Your task to perform on an android device: uninstall "Gmail" Image 0: 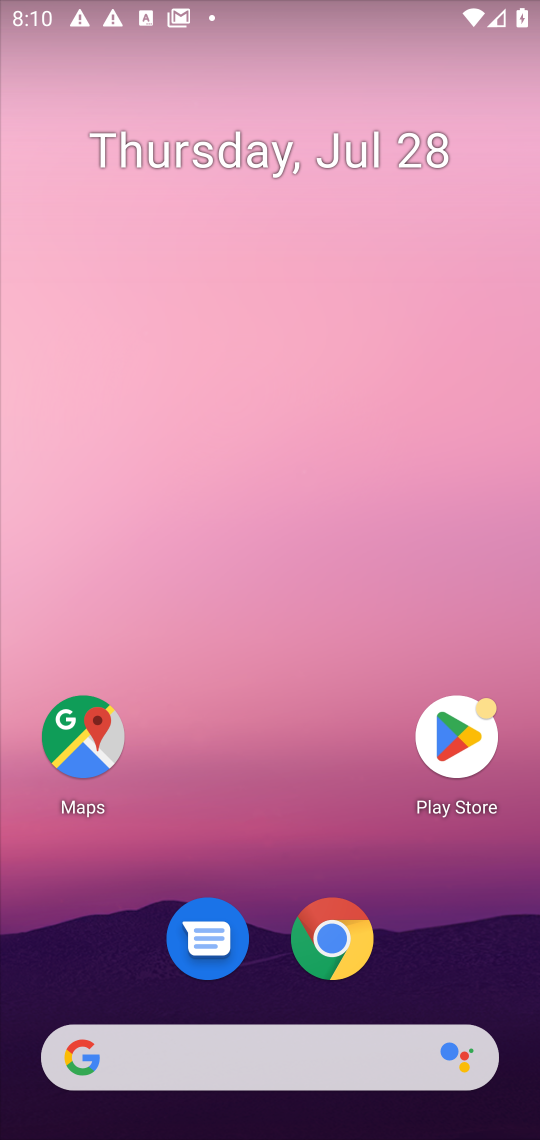
Step 0: click (454, 733)
Your task to perform on an android device: uninstall "Gmail" Image 1: 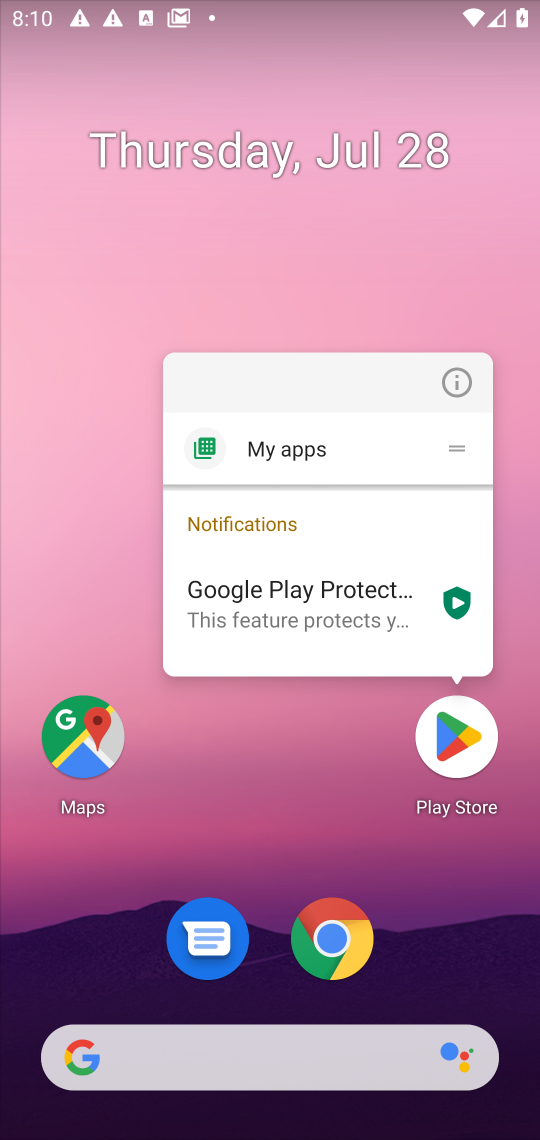
Step 1: click (439, 753)
Your task to perform on an android device: uninstall "Gmail" Image 2: 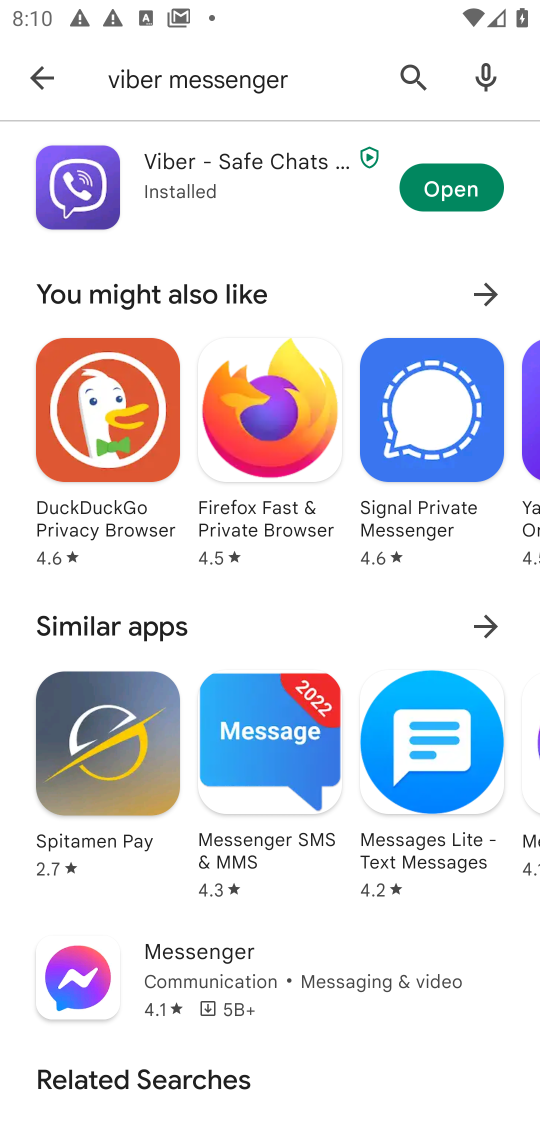
Step 2: click (413, 81)
Your task to perform on an android device: uninstall "Gmail" Image 3: 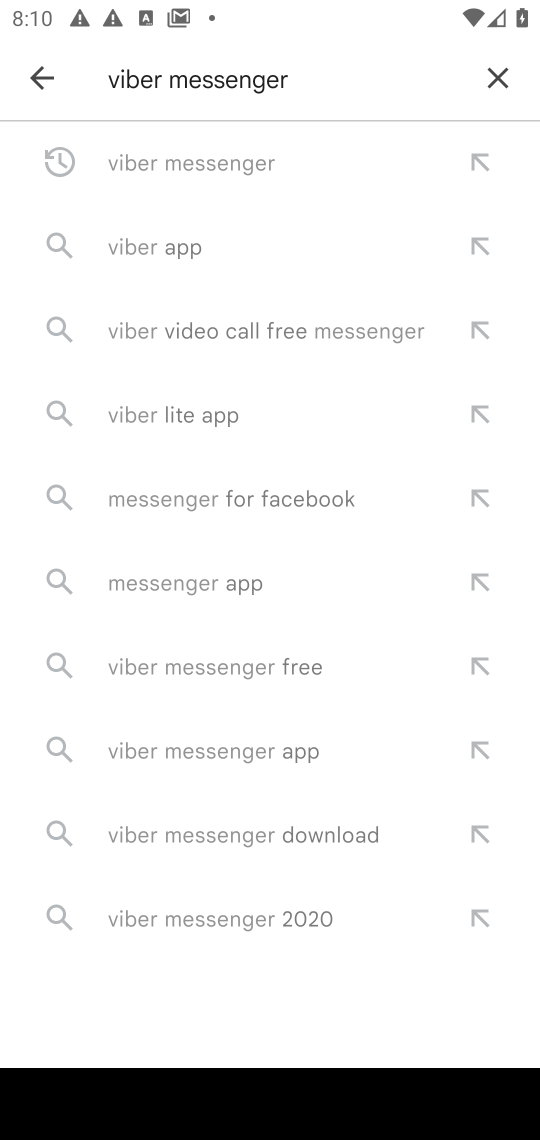
Step 3: click (497, 76)
Your task to perform on an android device: uninstall "Gmail" Image 4: 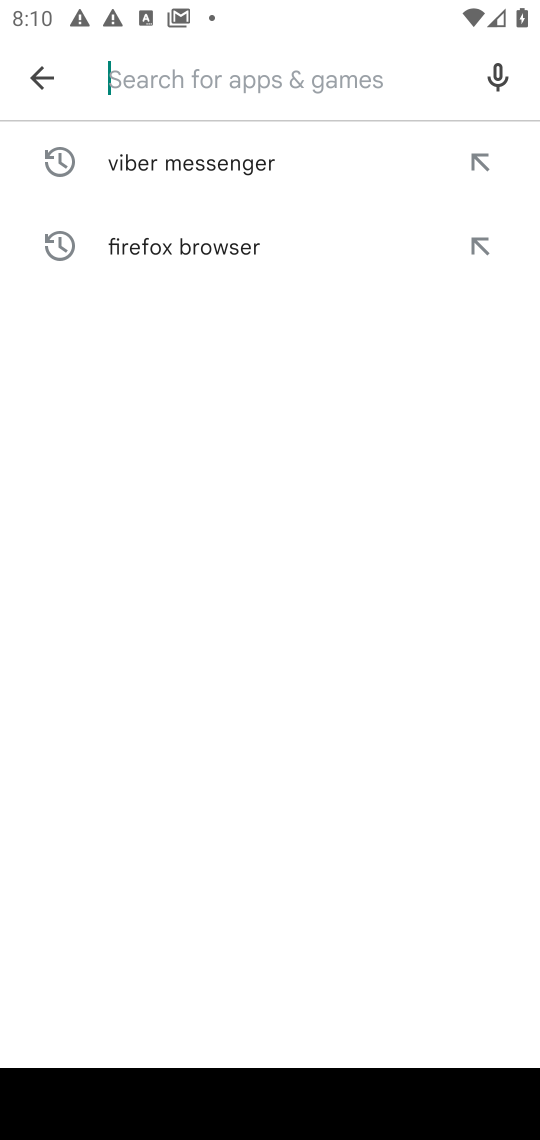
Step 4: type "Gmail"
Your task to perform on an android device: uninstall "Gmail" Image 5: 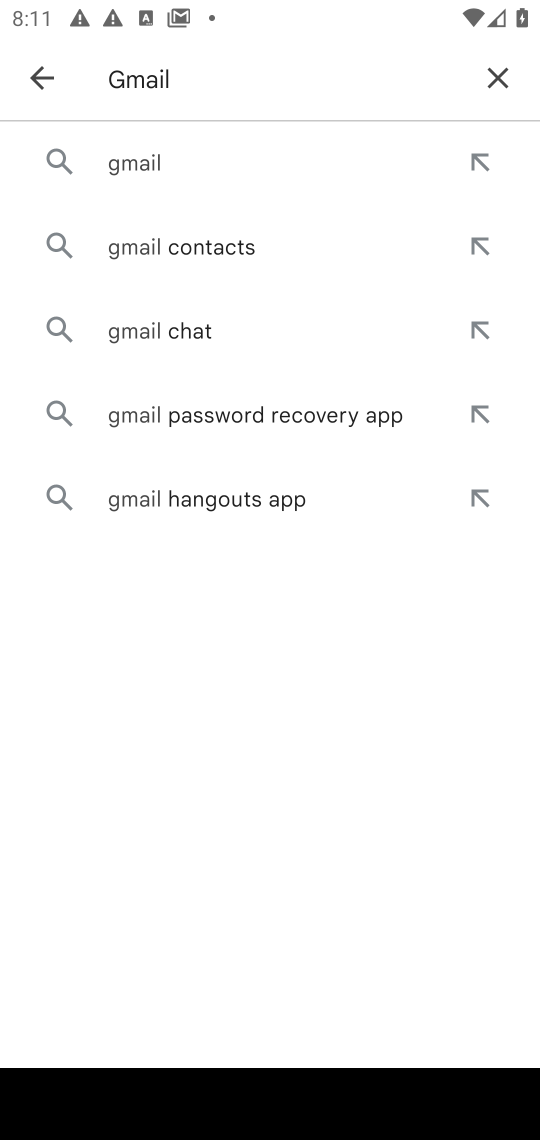
Step 5: click (147, 167)
Your task to perform on an android device: uninstall "Gmail" Image 6: 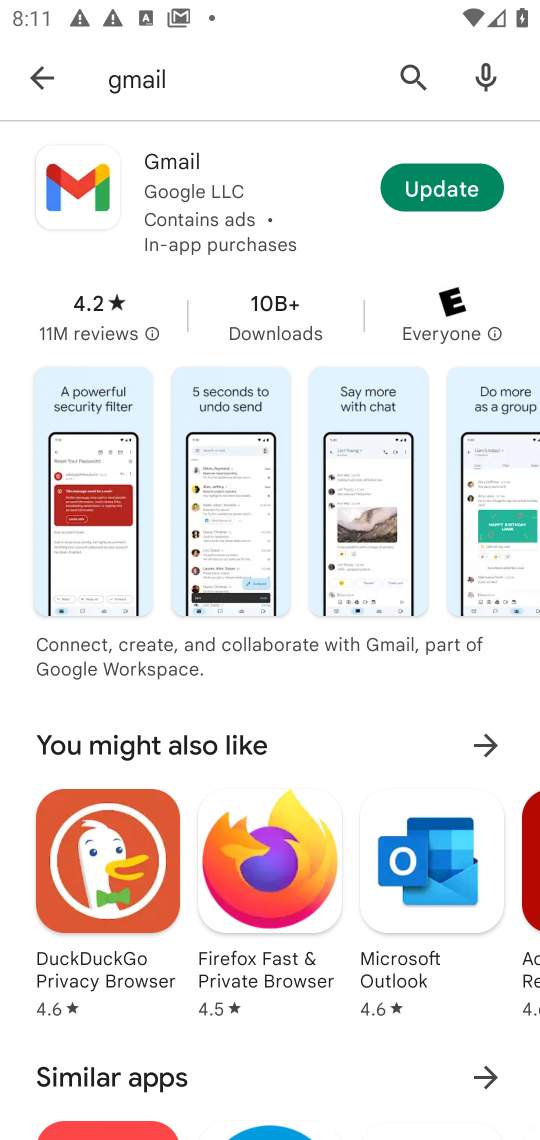
Step 6: click (436, 198)
Your task to perform on an android device: uninstall "Gmail" Image 7: 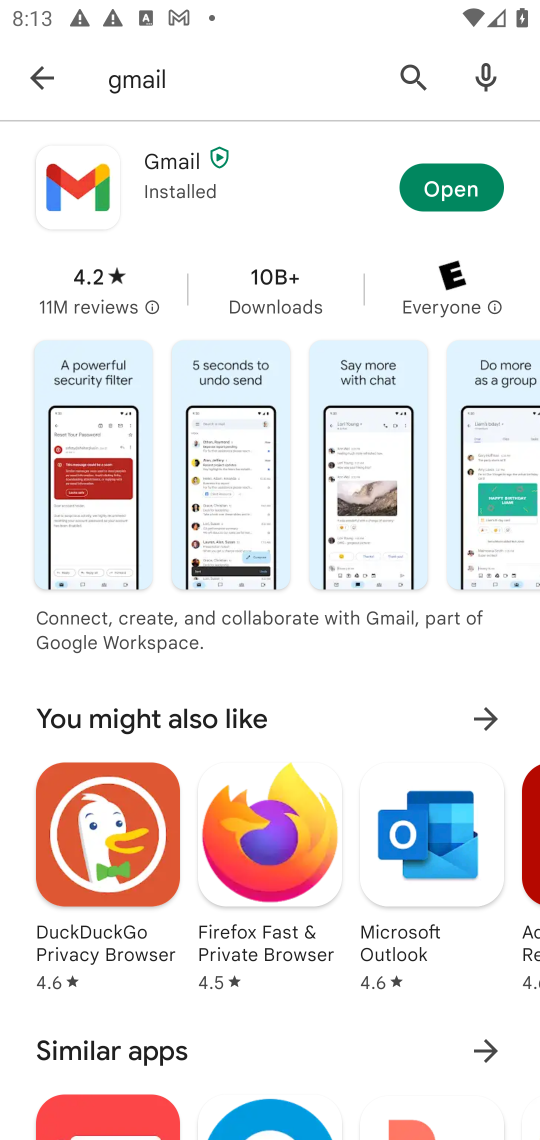
Step 7: click (304, 181)
Your task to perform on an android device: uninstall "Gmail" Image 8: 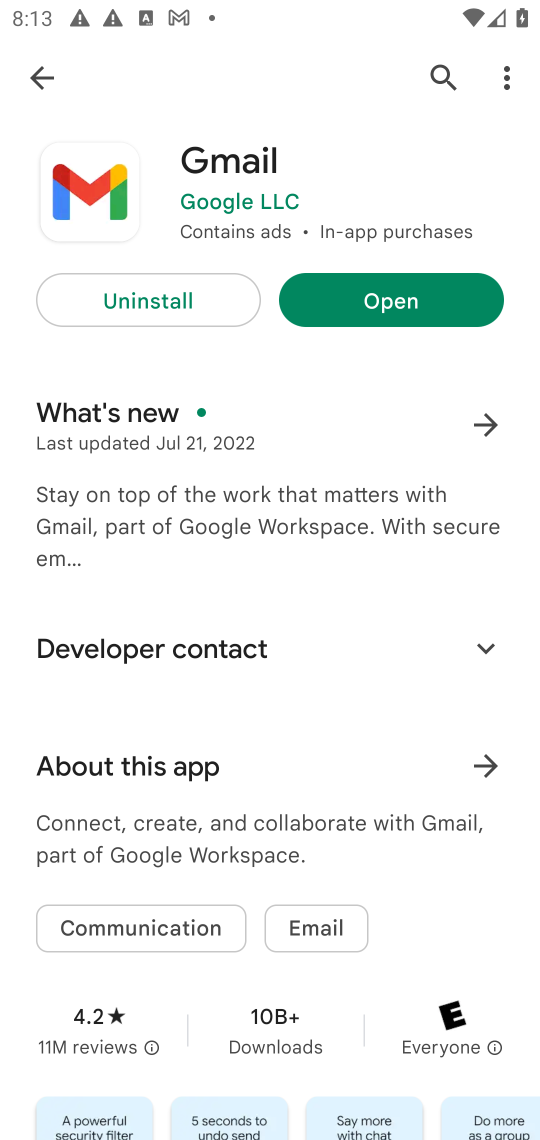
Step 8: click (150, 295)
Your task to perform on an android device: uninstall "Gmail" Image 9: 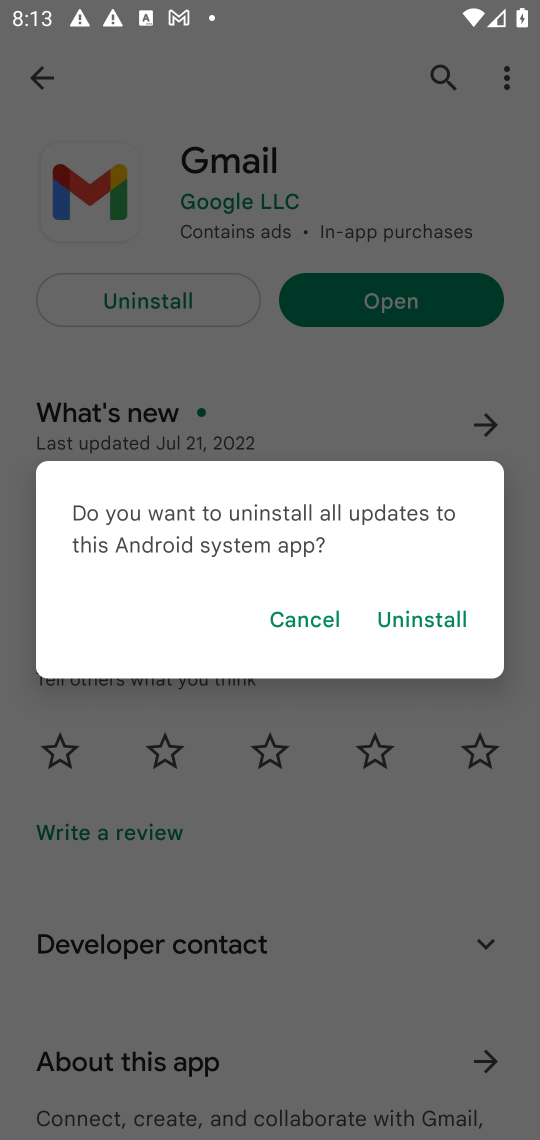
Step 9: click (427, 614)
Your task to perform on an android device: uninstall "Gmail" Image 10: 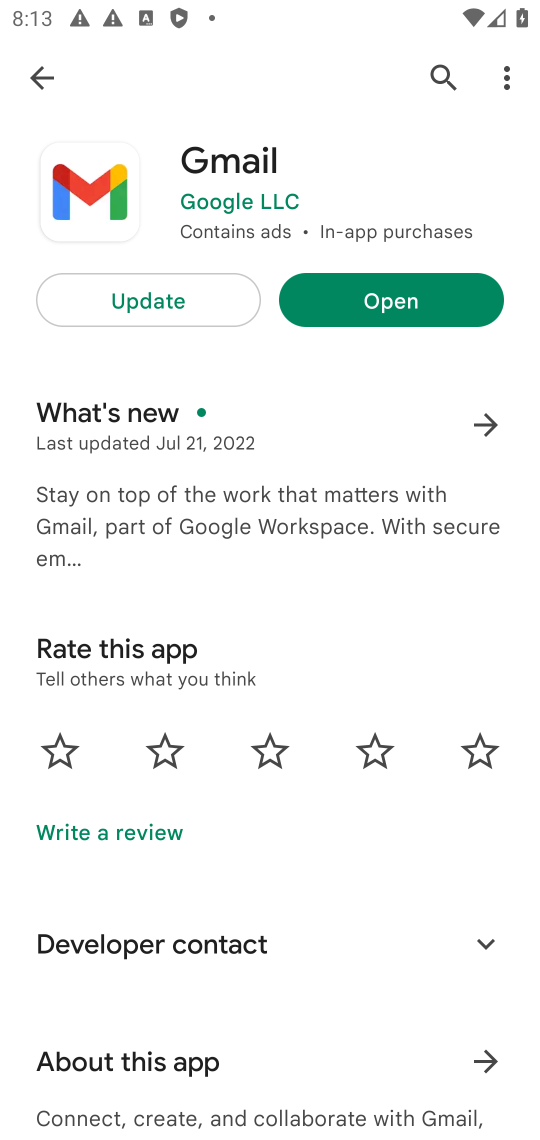
Step 10: task complete